Your task to perform on an android device: Open Chrome and go to settings Image 0: 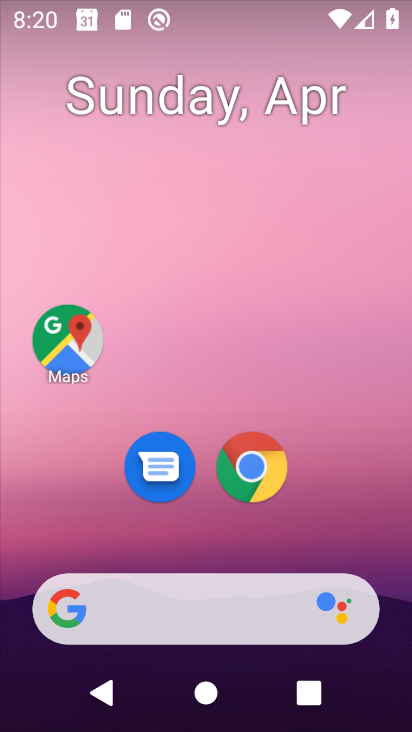
Step 0: click (258, 475)
Your task to perform on an android device: Open Chrome and go to settings Image 1: 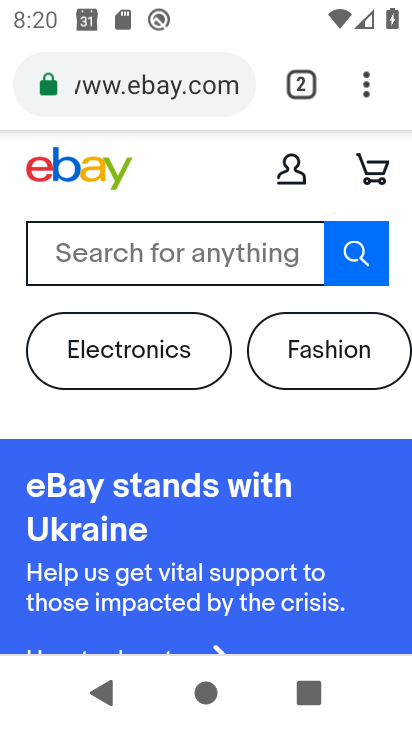
Step 1: click (361, 83)
Your task to perform on an android device: Open Chrome and go to settings Image 2: 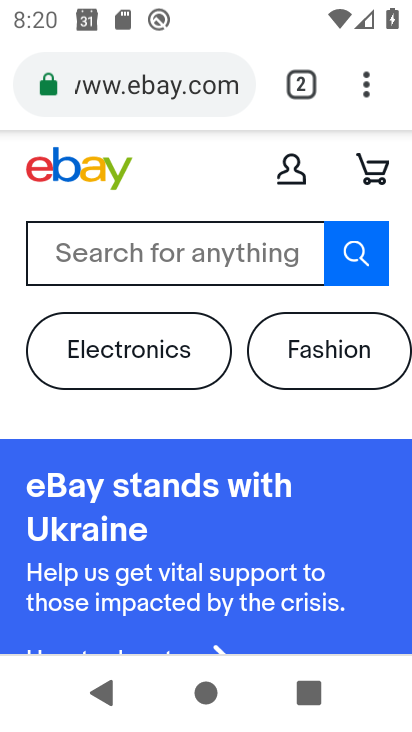
Step 2: click (379, 75)
Your task to perform on an android device: Open Chrome and go to settings Image 3: 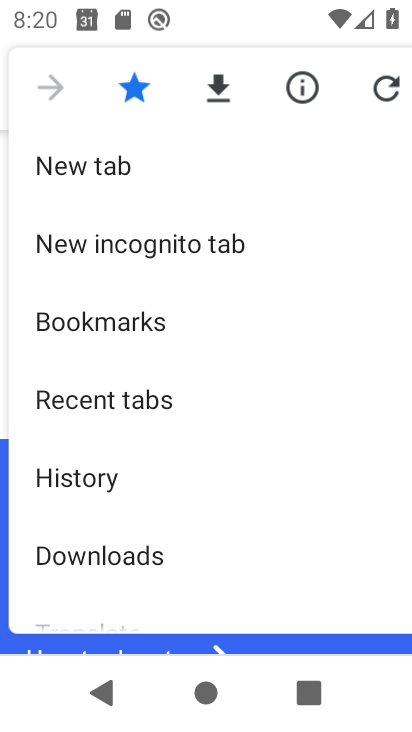
Step 3: drag from (147, 541) to (193, 299)
Your task to perform on an android device: Open Chrome and go to settings Image 4: 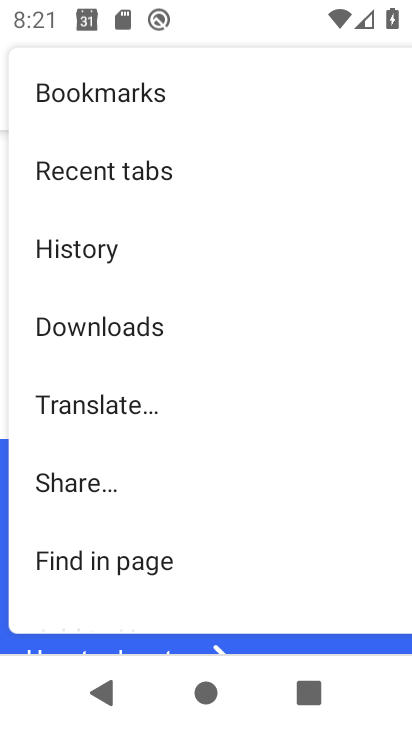
Step 4: drag from (200, 558) to (215, 267)
Your task to perform on an android device: Open Chrome and go to settings Image 5: 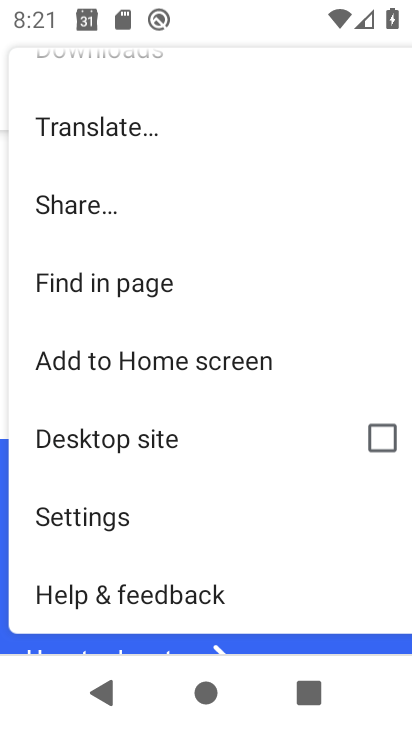
Step 5: click (214, 519)
Your task to perform on an android device: Open Chrome and go to settings Image 6: 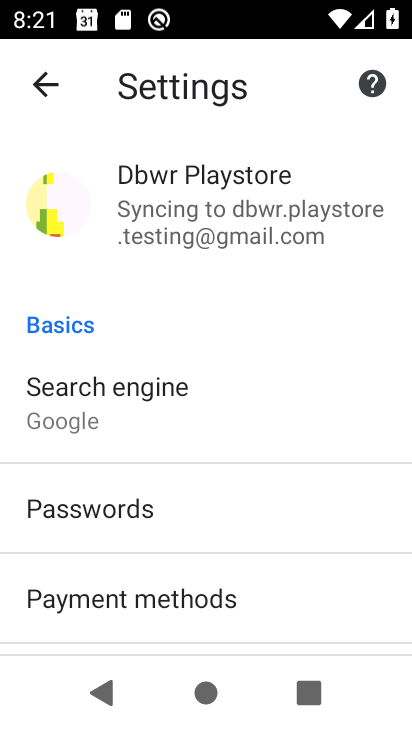
Step 6: task complete